Your task to perform on an android device: Go to battery settings Image 0: 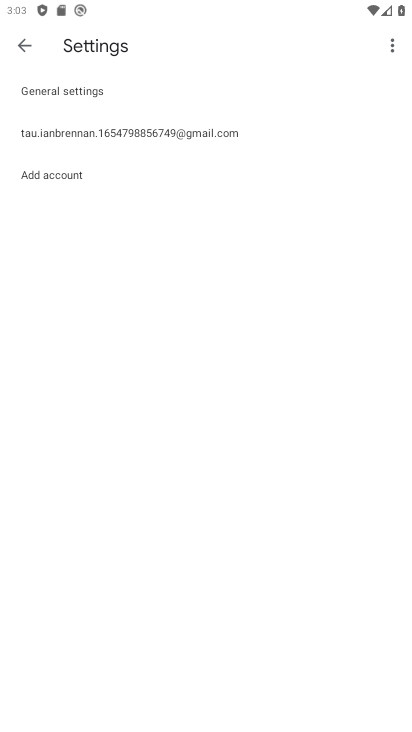
Step 0: press home button
Your task to perform on an android device: Go to battery settings Image 1: 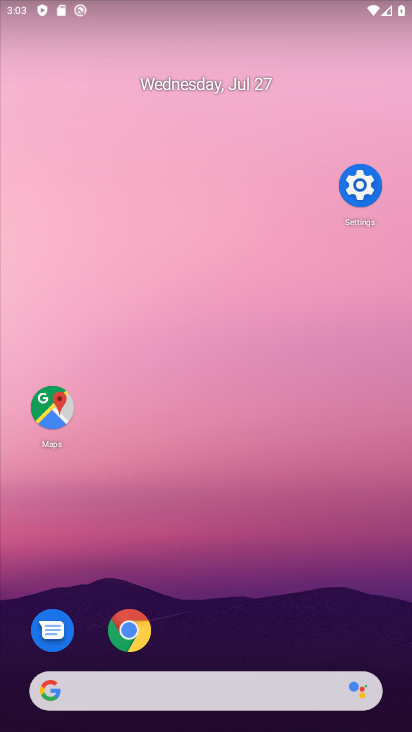
Step 1: drag from (253, 597) to (140, 0)
Your task to perform on an android device: Go to battery settings Image 2: 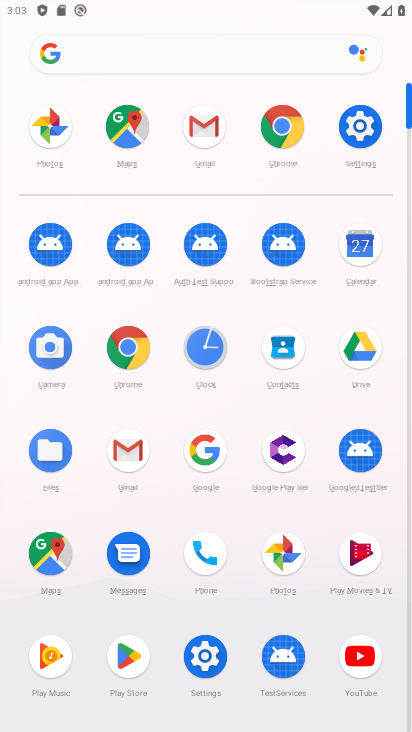
Step 2: click (370, 134)
Your task to perform on an android device: Go to battery settings Image 3: 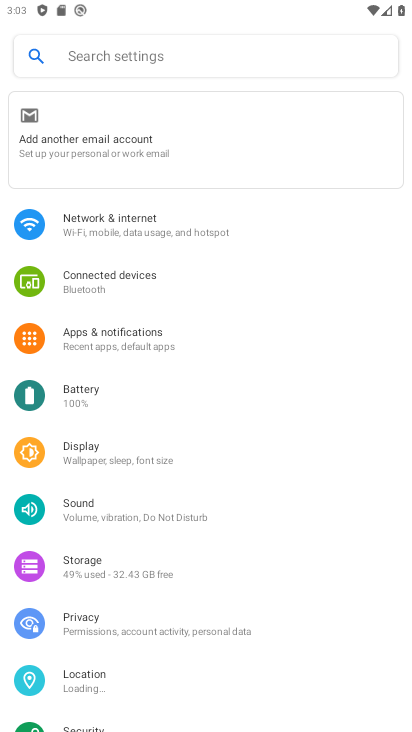
Step 3: click (87, 401)
Your task to perform on an android device: Go to battery settings Image 4: 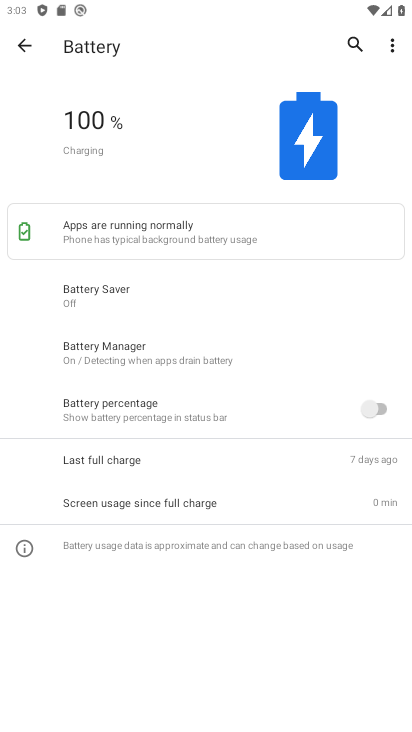
Step 4: task complete